Your task to perform on an android device: Go to battery settings Image 0: 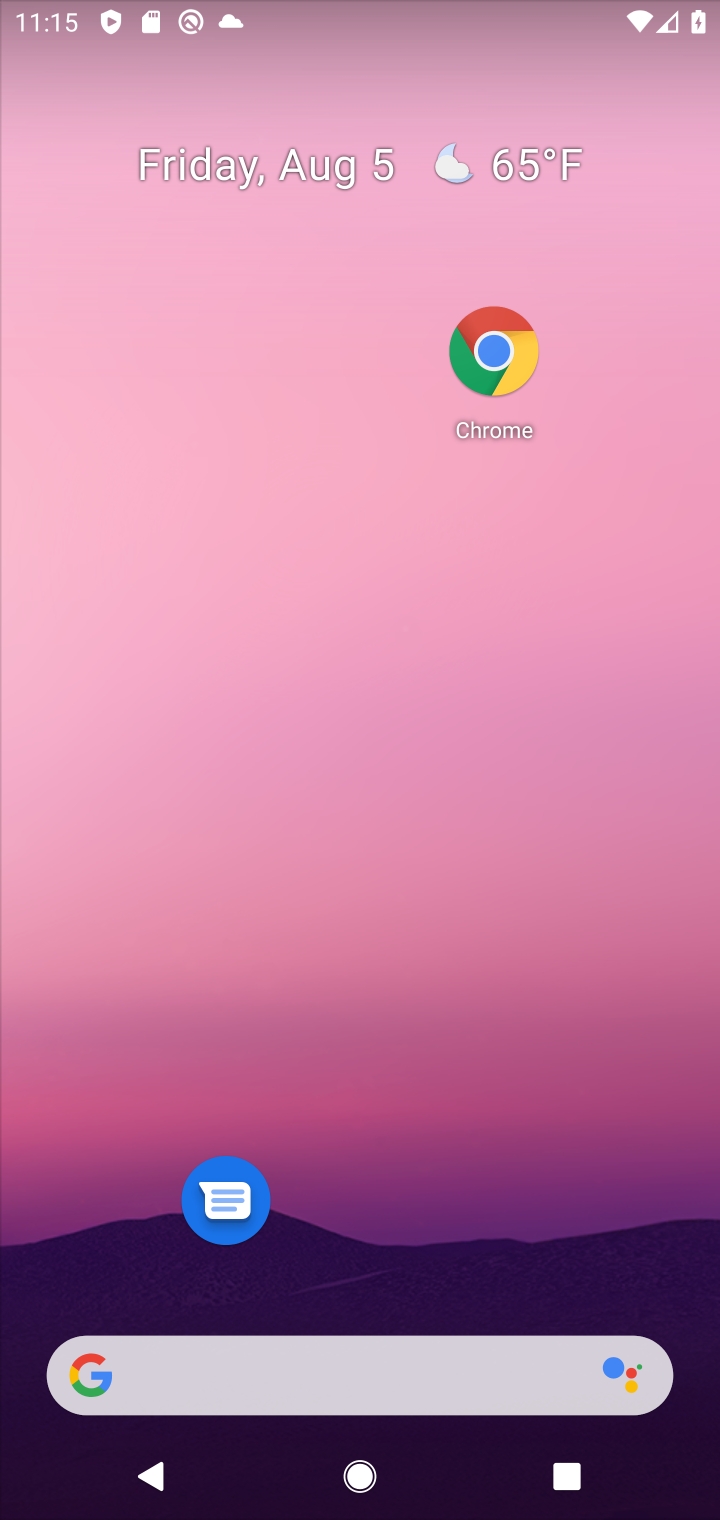
Step 0: press home button
Your task to perform on an android device: Go to battery settings Image 1: 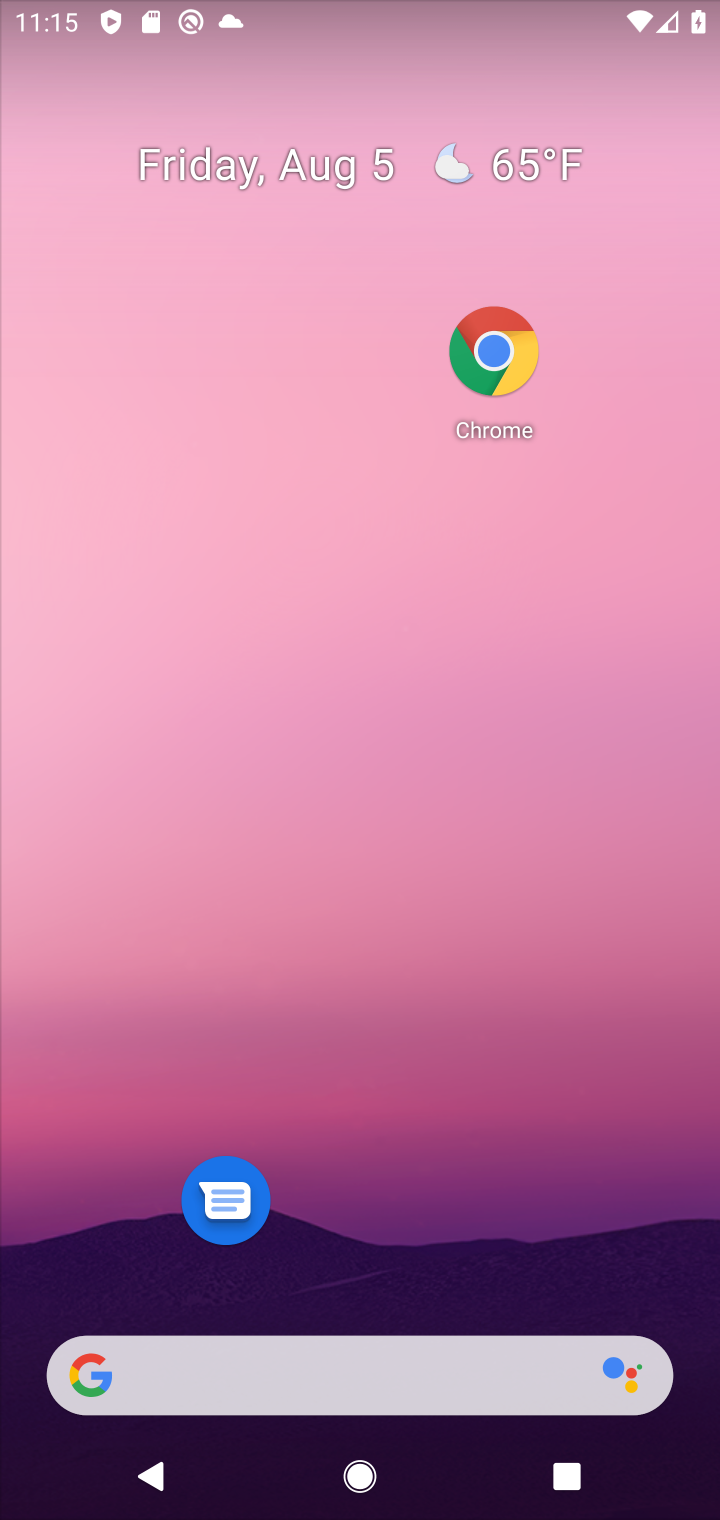
Step 1: drag from (259, 1336) to (365, 320)
Your task to perform on an android device: Go to battery settings Image 2: 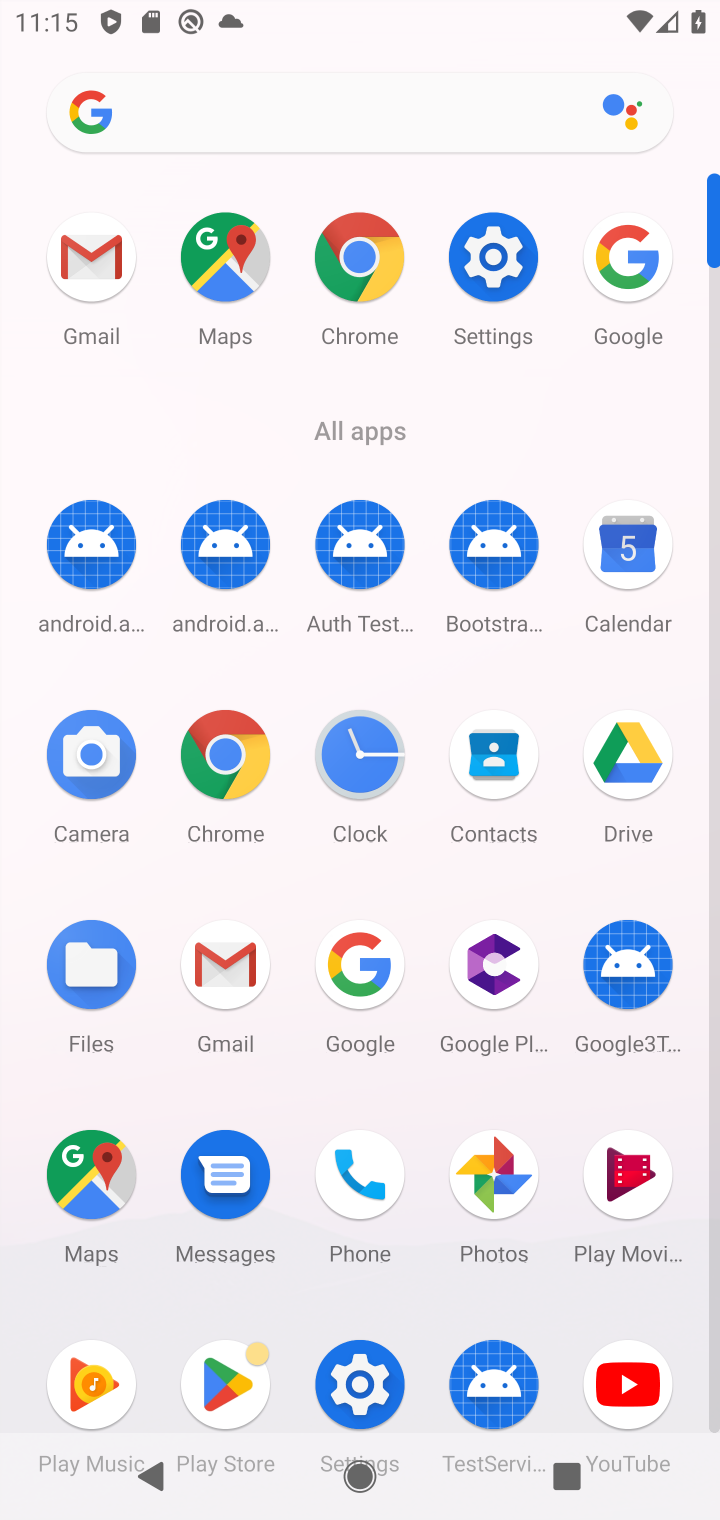
Step 2: click (515, 292)
Your task to perform on an android device: Go to battery settings Image 3: 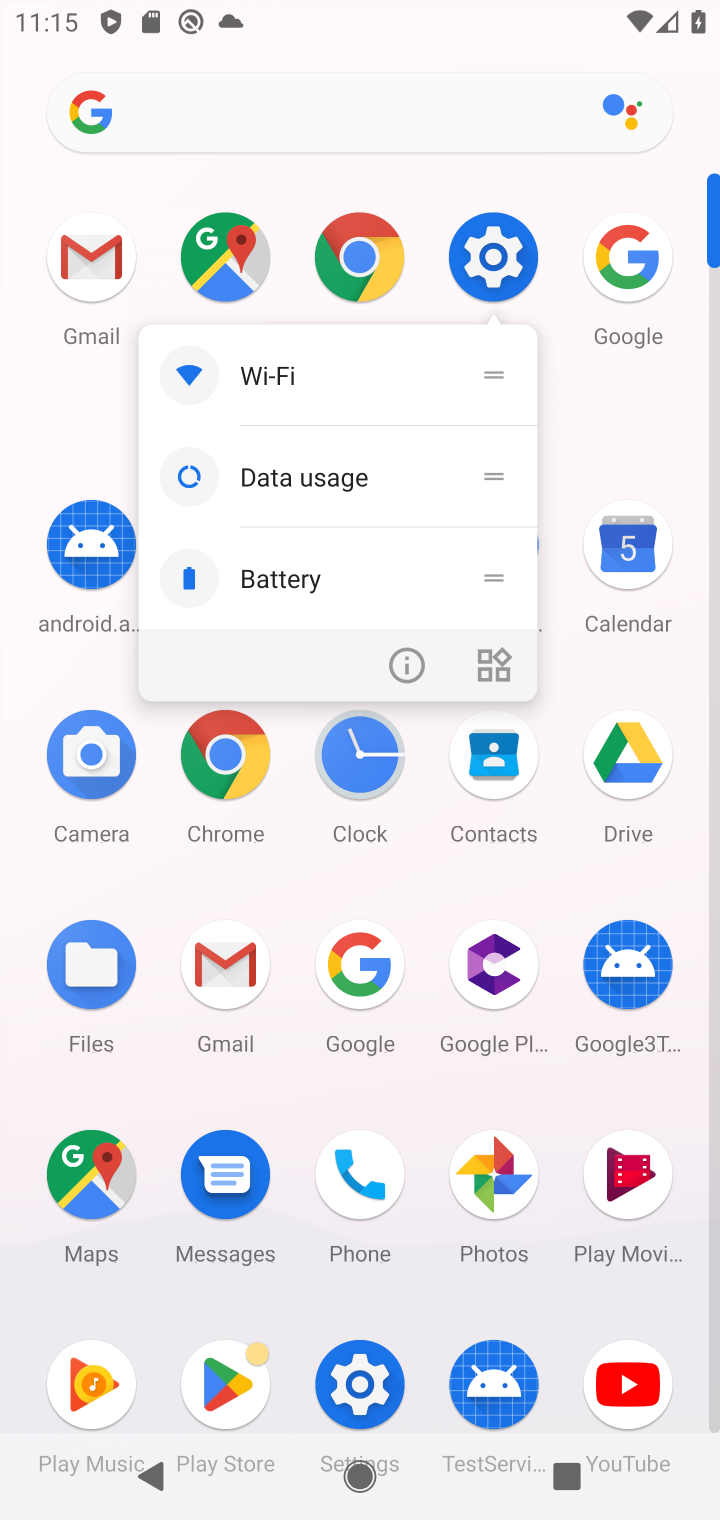
Step 3: click (510, 265)
Your task to perform on an android device: Go to battery settings Image 4: 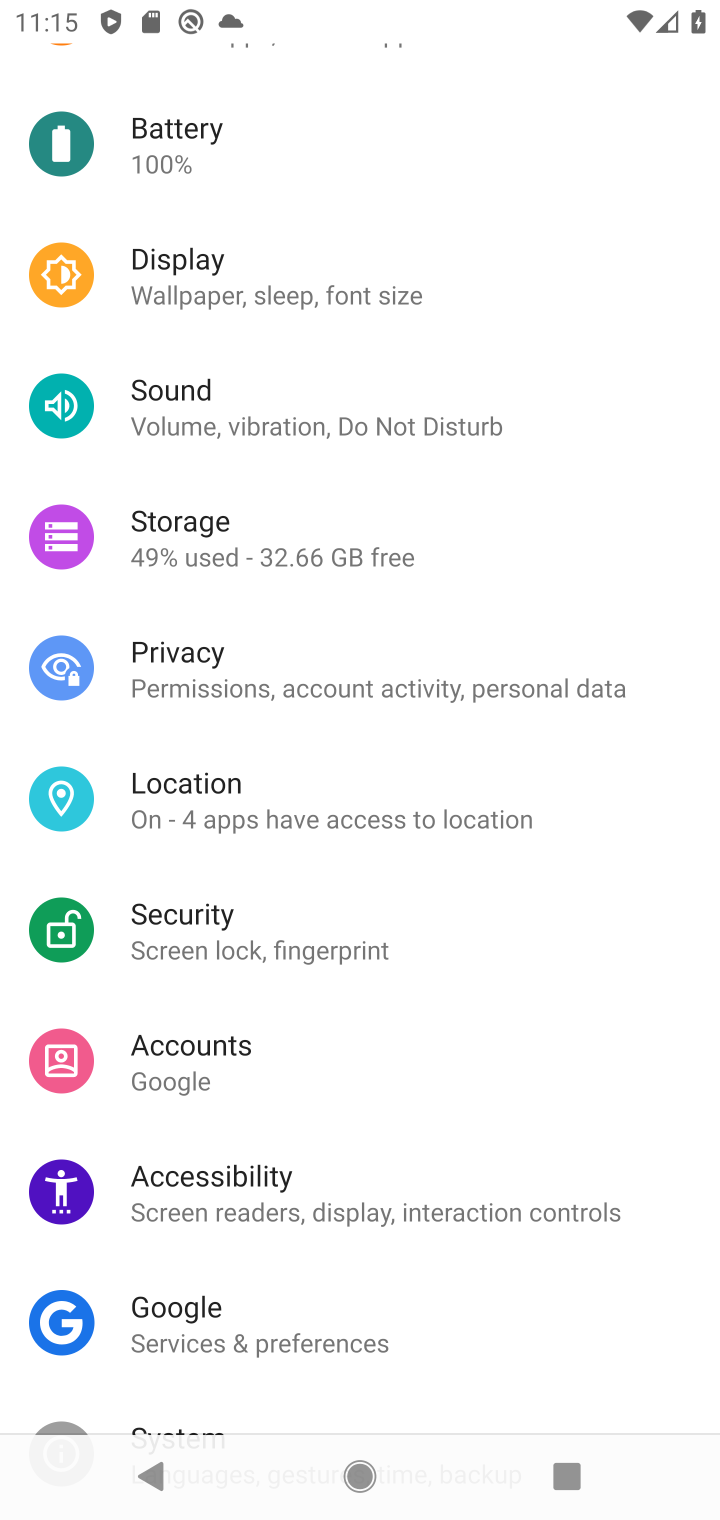
Step 4: click (288, 171)
Your task to perform on an android device: Go to battery settings Image 5: 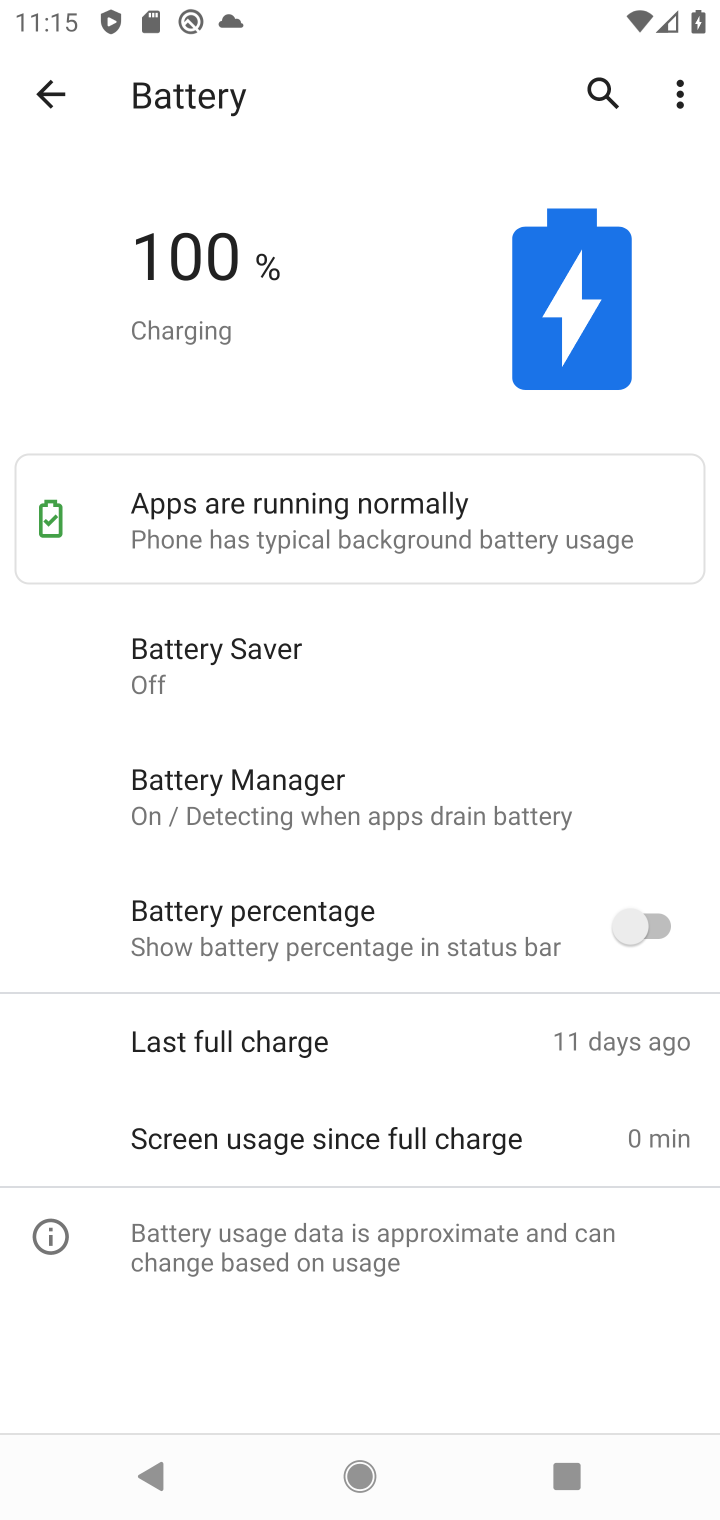
Step 5: task complete